Your task to perform on an android device: change keyboard looks Image 0: 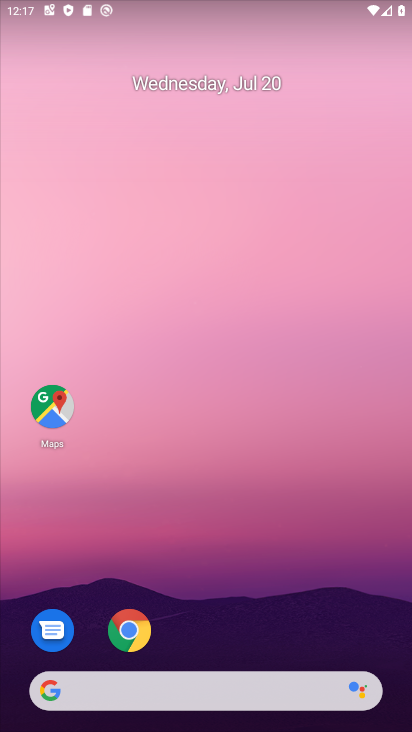
Step 0: press home button
Your task to perform on an android device: change keyboard looks Image 1: 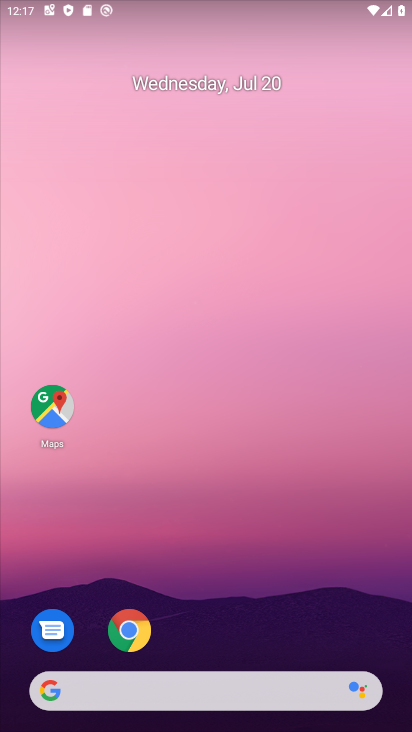
Step 1: drag from (298, 572) to (274, 88)
Your task to perform on an android device: change keyboard looks Image 2: 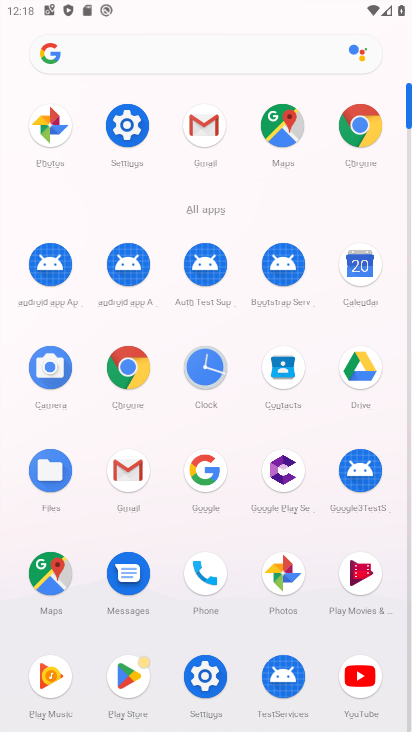
Step 2: click (126, 126)
Your task to perform on an android device: change keyboard looks Image 3: 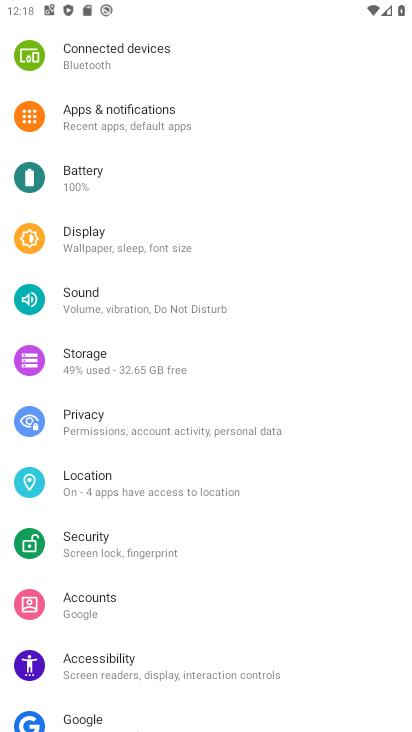
Step 3: drag from (182, 697) to (198, 254)
Your task to perform on an android device: change keyboard looks Image 4: 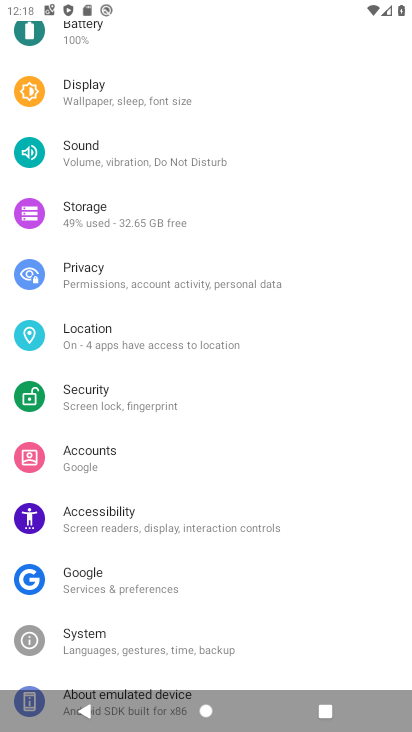
Step 4: click (78, 640)
Your task to perform on an android device: change keyboard looks Image 5: 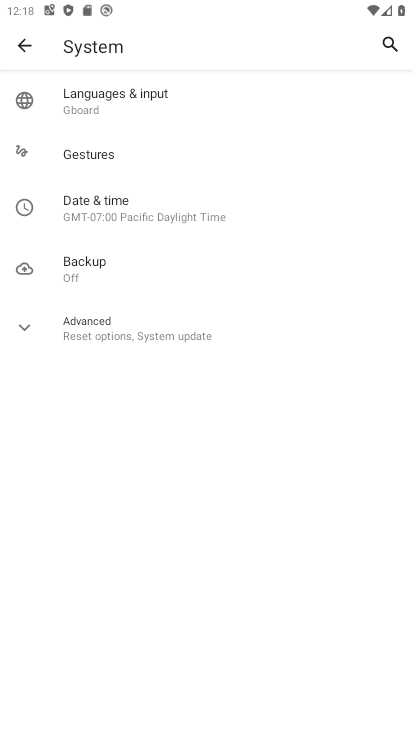
Step 5: click (129, 93)
Your task to perform on an android device: change keyboard looks Image 6: 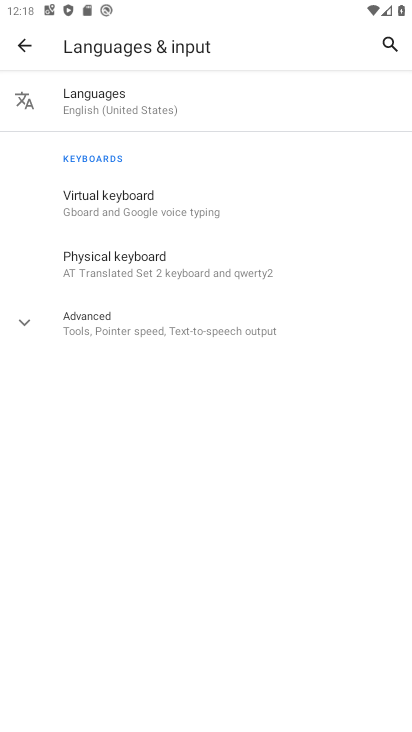
Step 6: click (126, 197)
Your task to perform on an android device: change keyboard looks Image 7: 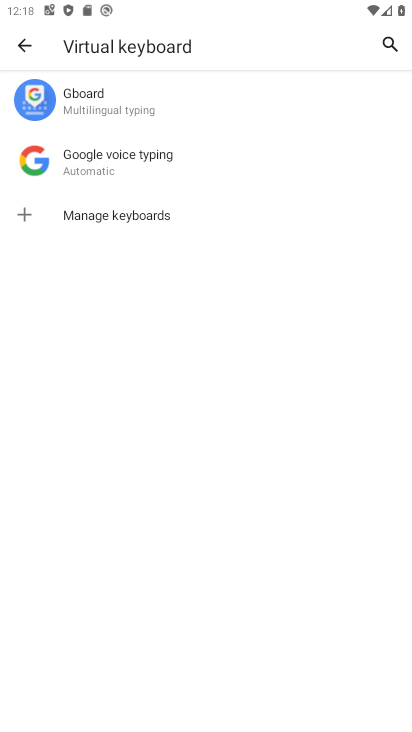
Step 7: click (84, 103)
Your task to perform on an android device: change keyboard looks Image 8: 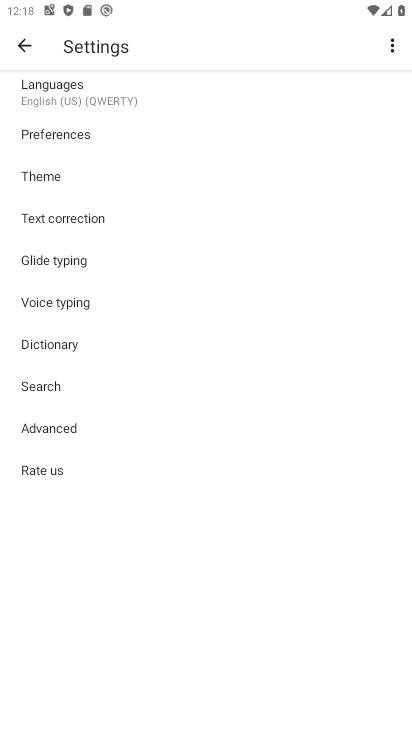
Step 8: click (42, 171)
Your task to perform on an android device: change keyboard looks Image 9: 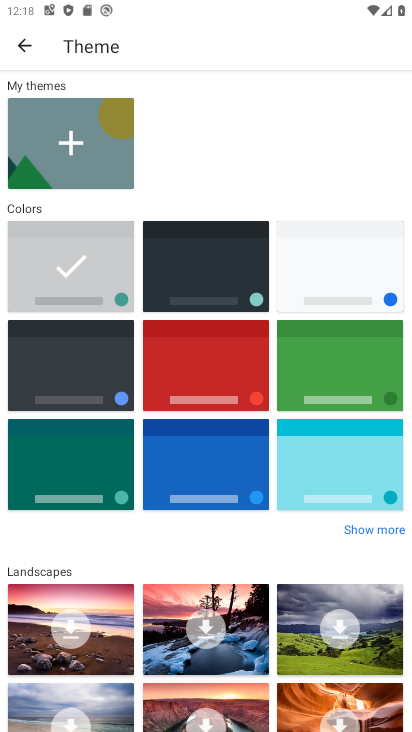
Step 9: click (222, 394)
Your task to perform on an android device: change keyboard looks Image 10: 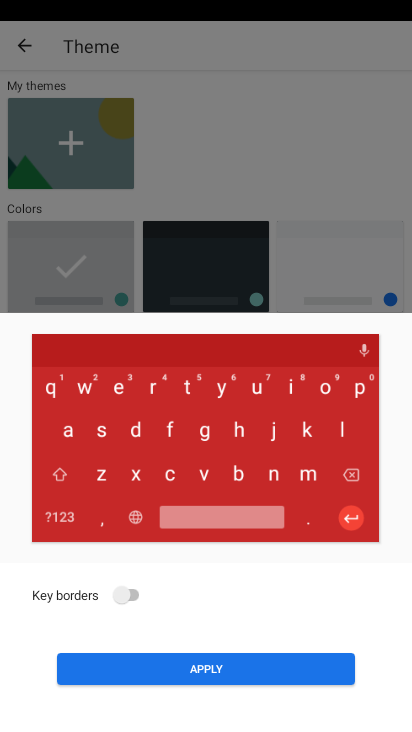
Step 10: click (202, 663)
Your task to perform on an android device: change keyboard looks Image 11: 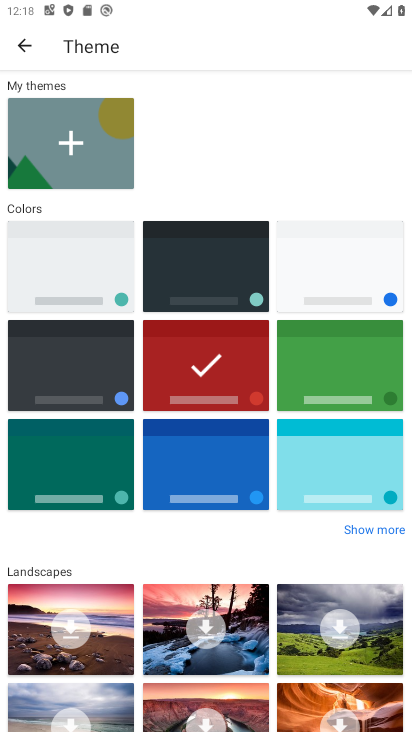
Step 11: task complete